Your task to perform on an android device: turn off notifications in google photos Image 0: 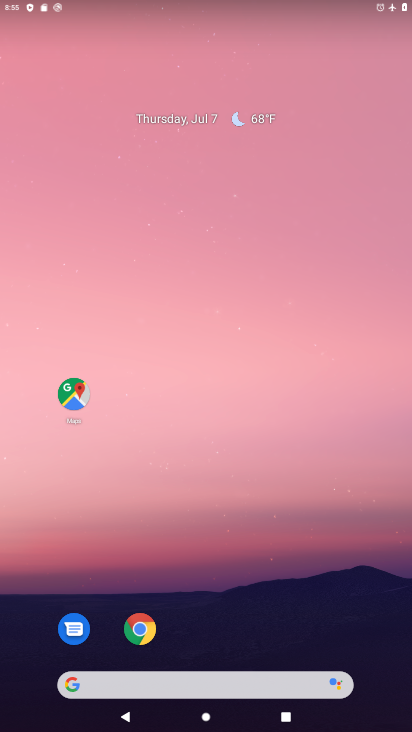
Step 0: drag from (214, 618) to (221, 74)
Your task to perform on an android device: turn off notifications in google photos Image 1: 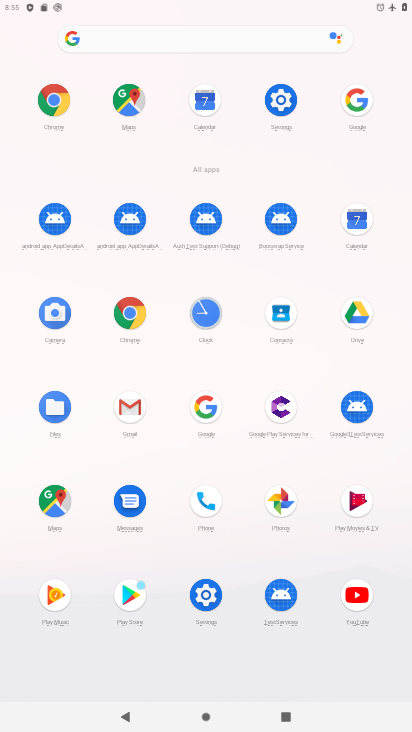
Step 1: click (281, 500)
Your task to perform on an android device: turn off notifications in google photos Image 2: 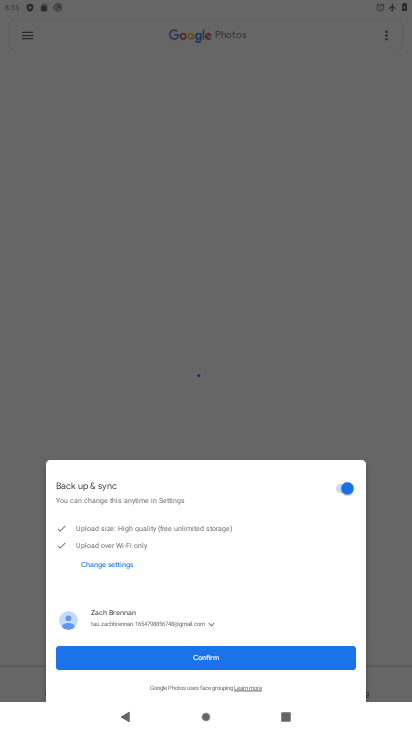
Step 2: click (219, 657)
Your task to perform on an android device: turn off notifications in google photos Image 3: 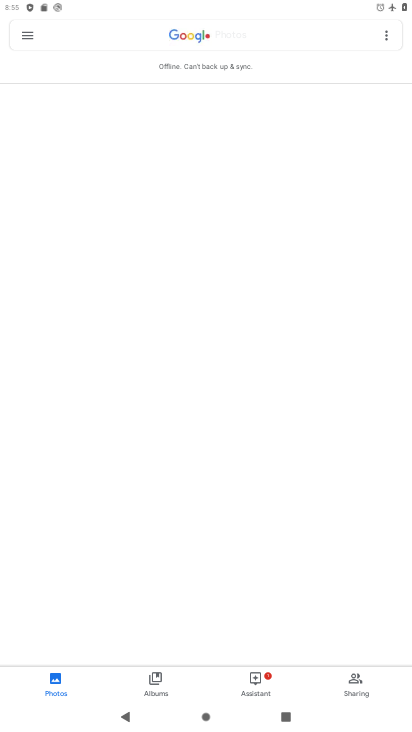
Step 3: click (29, 36)
Your task to perform on an android device: turn off notifications in google photos Image 4: 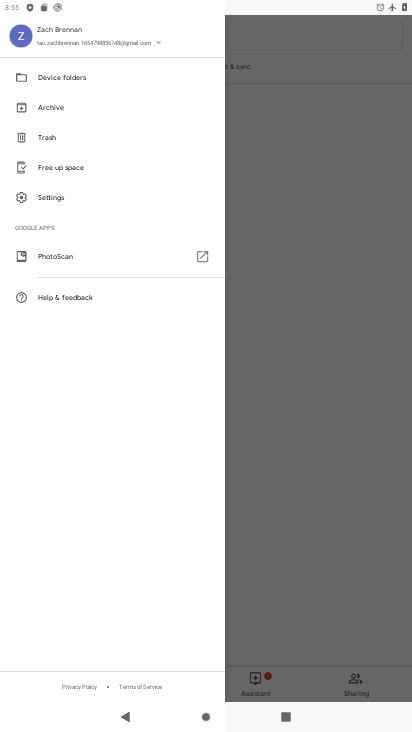
Step 4: click (48, 201)
Your task to perform on an android device: turn off notifications in google photos Image 5: 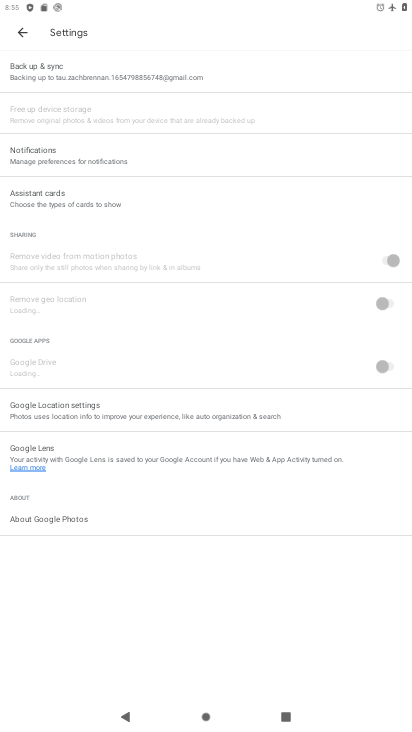
Step 5: click (82, 158)
Your task to perform on an android device: turn off notifications in google photos Image 6: 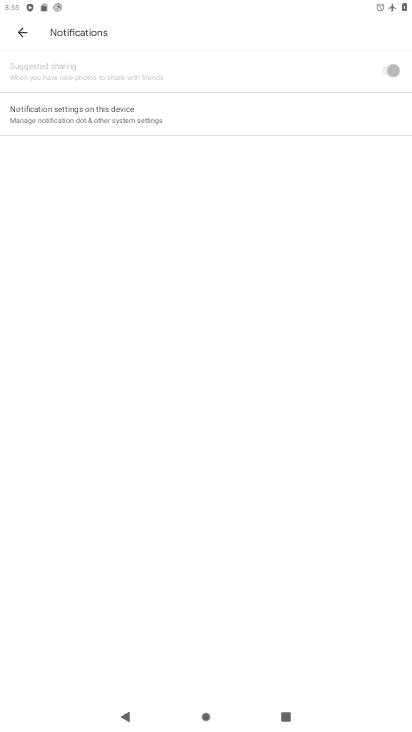
Step 6: click (127, 125)
Your task to perform on an android device: turn off notifications in google photos Image 7: 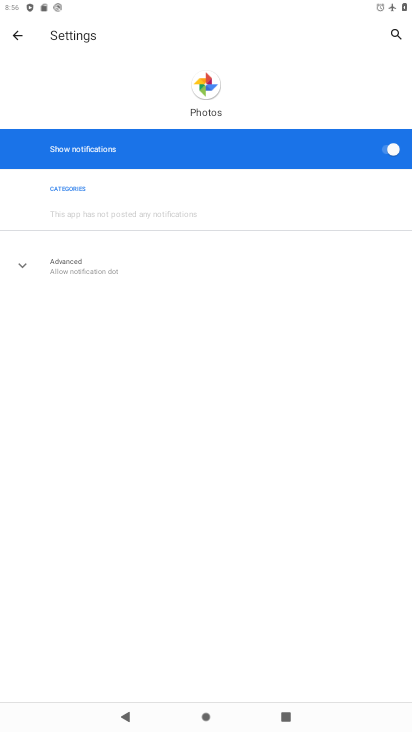
Step 7: click (387, 149)
Your task to perform on an android device: turn off notifications in google photos Image 8: 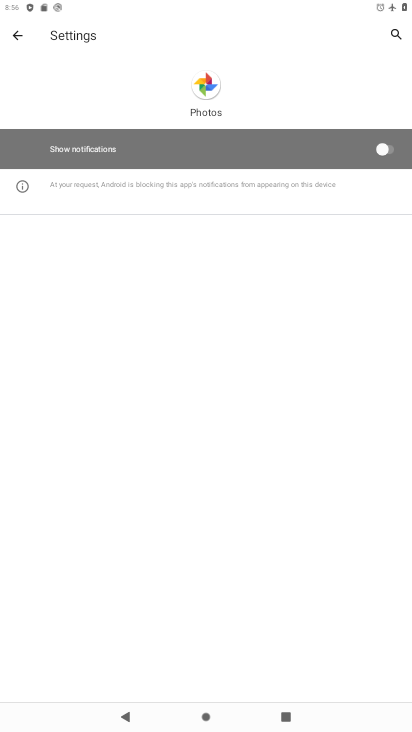
Step 8: task complete